Your task to perform on an android device: Open display settings Image 0: 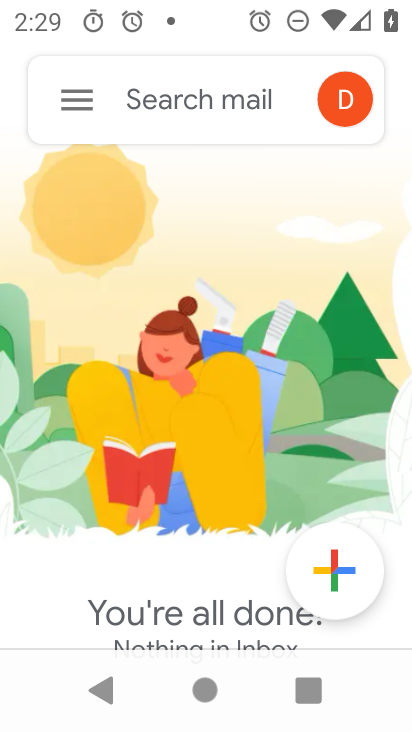
Step 0: press home button
Your task to perform on an android device: Open display settings Image 1: 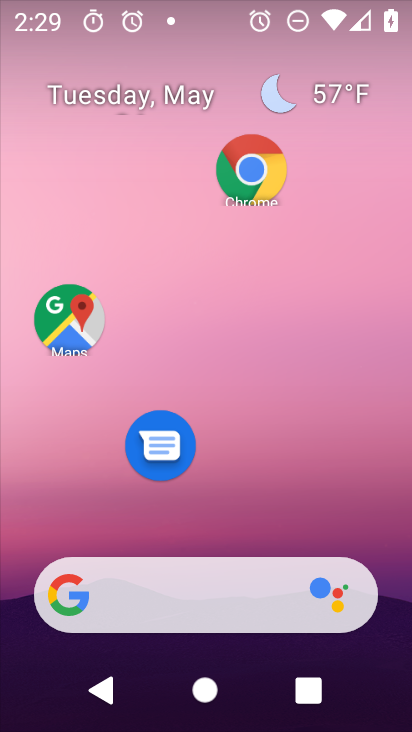
Step 1: drag from (240, 726) to (226, 51)
Your task to perform on an android device: Open display settings Image 2: 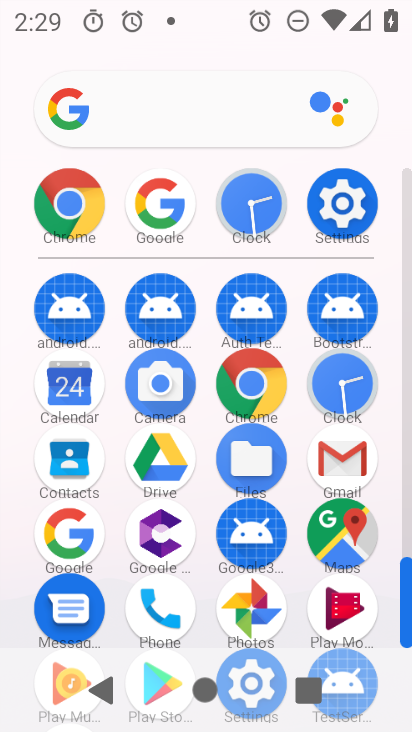
Step 2: click (339, 202)
Your task to perform on an android device: Open display settings Image 3: 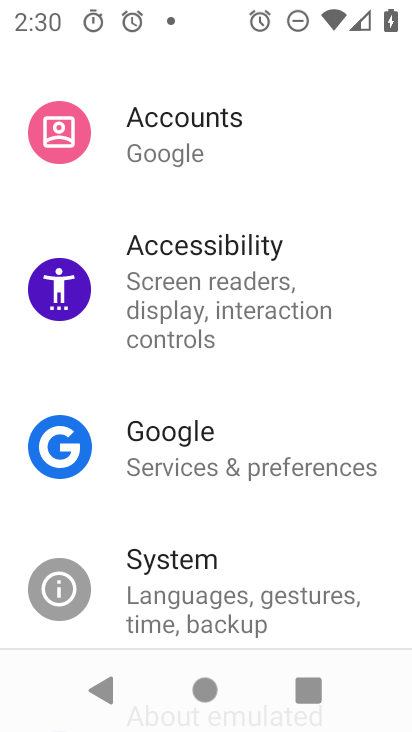
Step 3: drag from (222, 158) to (248, 591)
Your task to perform on an android device: Open display settings Image 4: 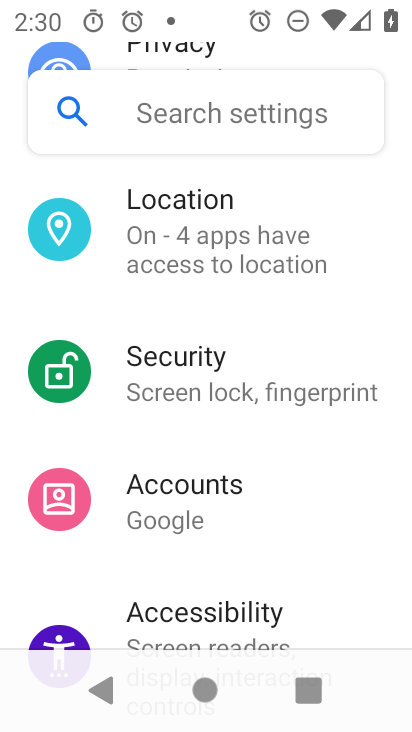
Step 4: drag from (251, 198) to (261, 542)
Your task to perform on an android device: Open display settings Image 5: 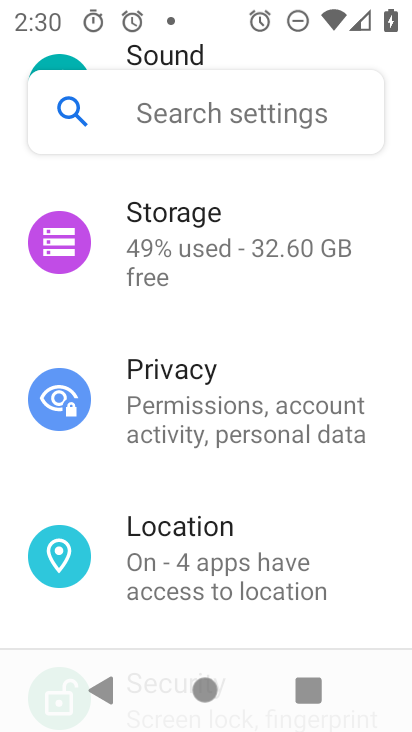
Step 5: drag from (253, 195) to (269, 534)
Your task to perform on an android device: Open display settings Image 6: 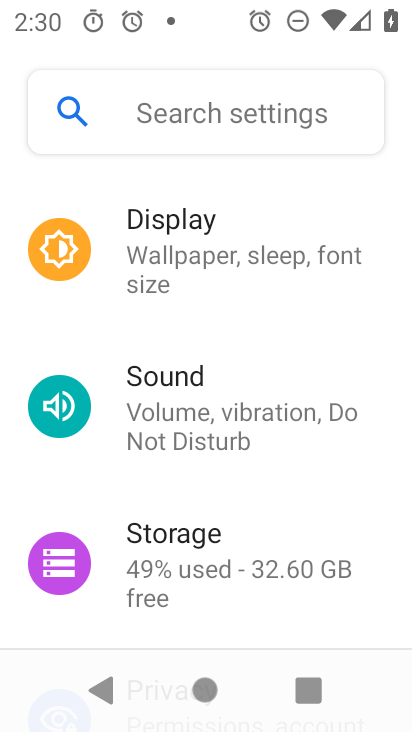
Step 6: click (156, 248)
Your task to perform on an android device: Open display settings Image 7: 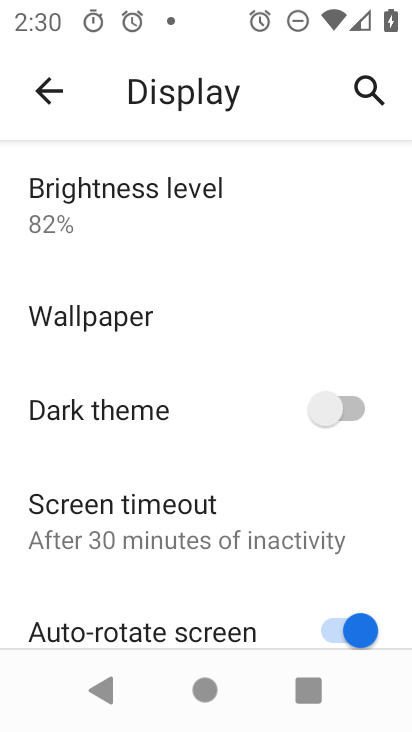
Step 7: task complete